Your task to perform on an android device: Go to internet settings Image 0: 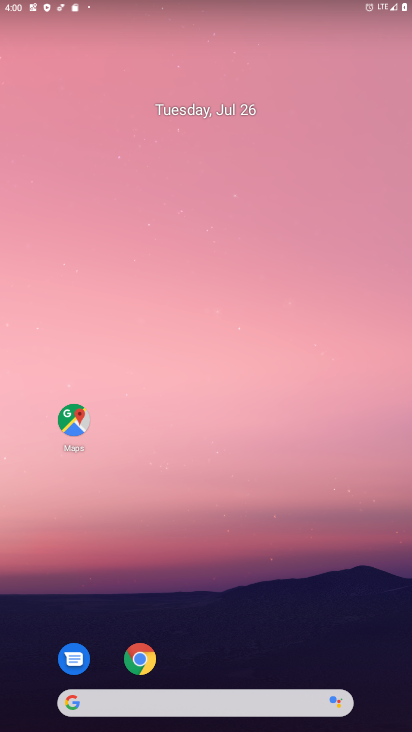
Step 0: press home button
Your task to perform on an android device: Go to internet settings Image 1: 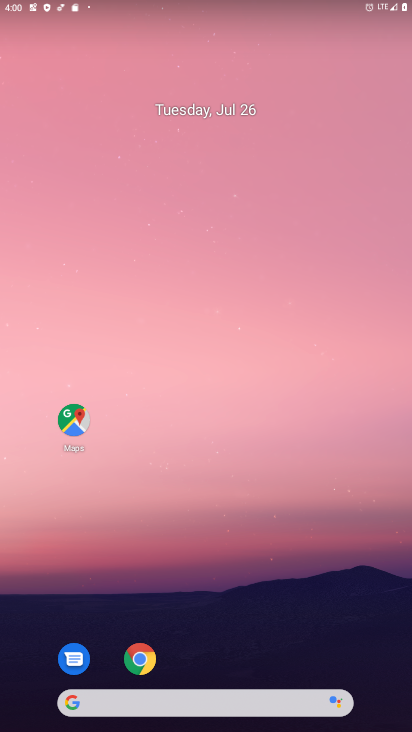
Step 1: press home button
Your task to perform on an android device: Go to internet settings Image 2: 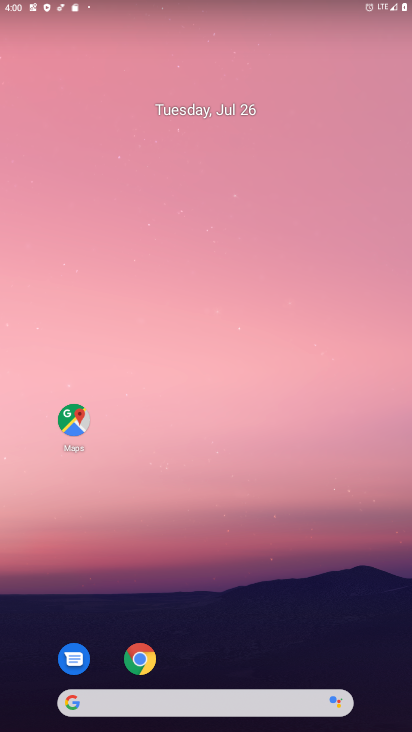
Step 2: press home button
Your task to perform on an android device: Go to internet settings Image 3: 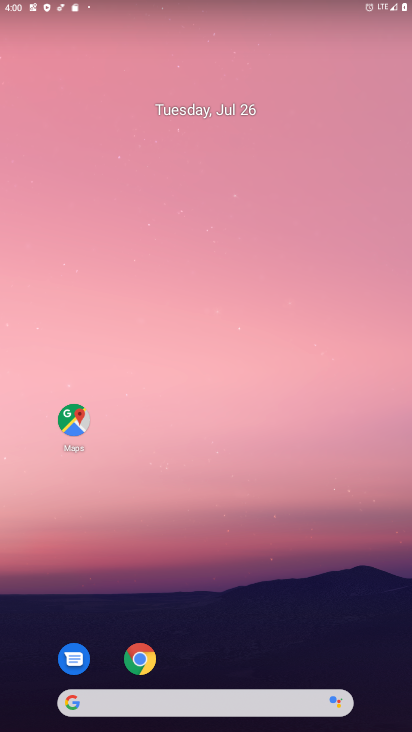
Step 3: drag from (204, 418) to (104, 0)
Your task to perform on an android device: Go to internet settings Image 4: 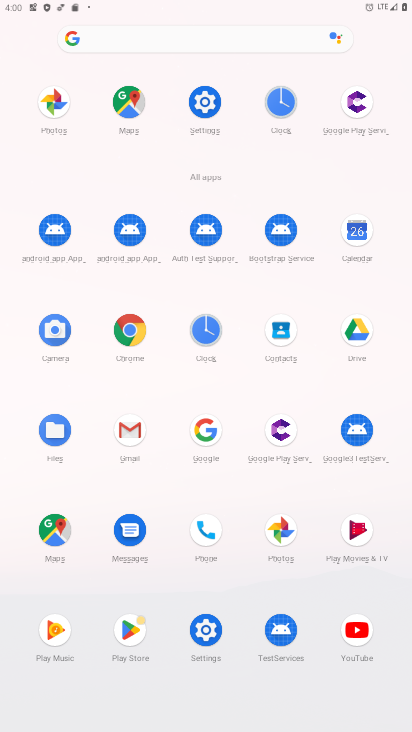
Step 4: click (200, 107)
Your task to perform on an android device: Go to internet settings Image 5: 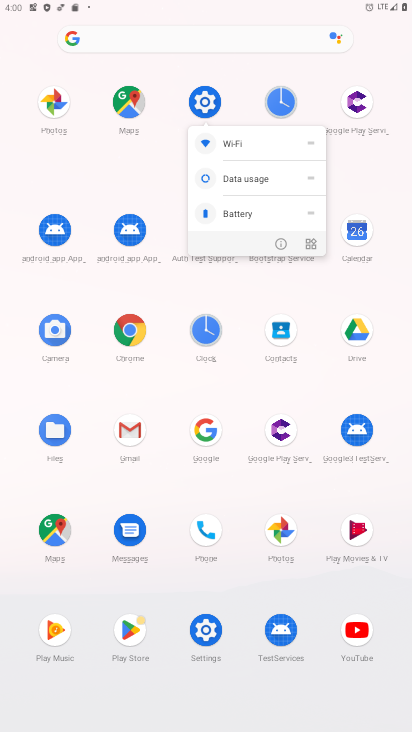
Step 5: click (203, 96)
Your task to perform on an android device: Go to internet settings Image 6: 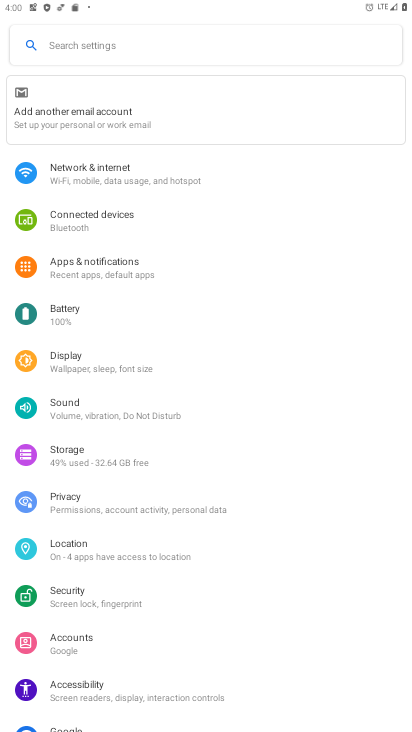
Step 6: click (96, 187)
Your task to perform on an android device: Go to internet settings Image 7: 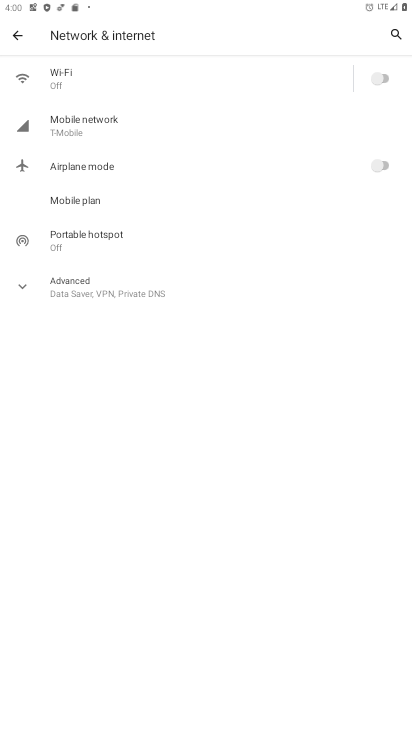
Step 7: task complete